Your task to perform on an android device: Go to battery settings Image 0: 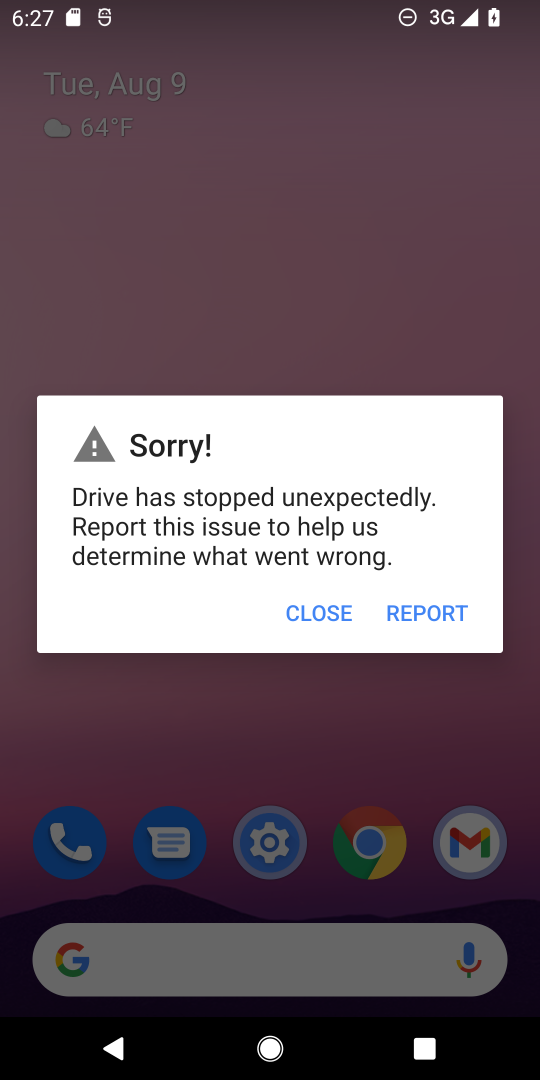
Step 0: drag from (320, 935) to (454, 258)
Your task to perform on an android device: Go to battery settings Image 1: 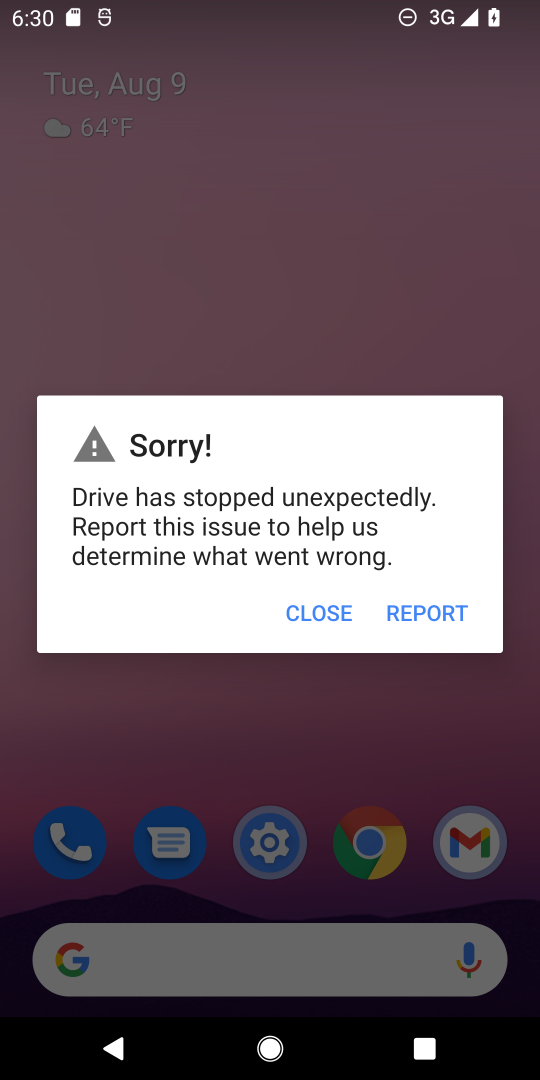
Step 1: drag from (205, 837) to (301, 5)
Your task to perform on an android device: Go to battery settings Image 2: 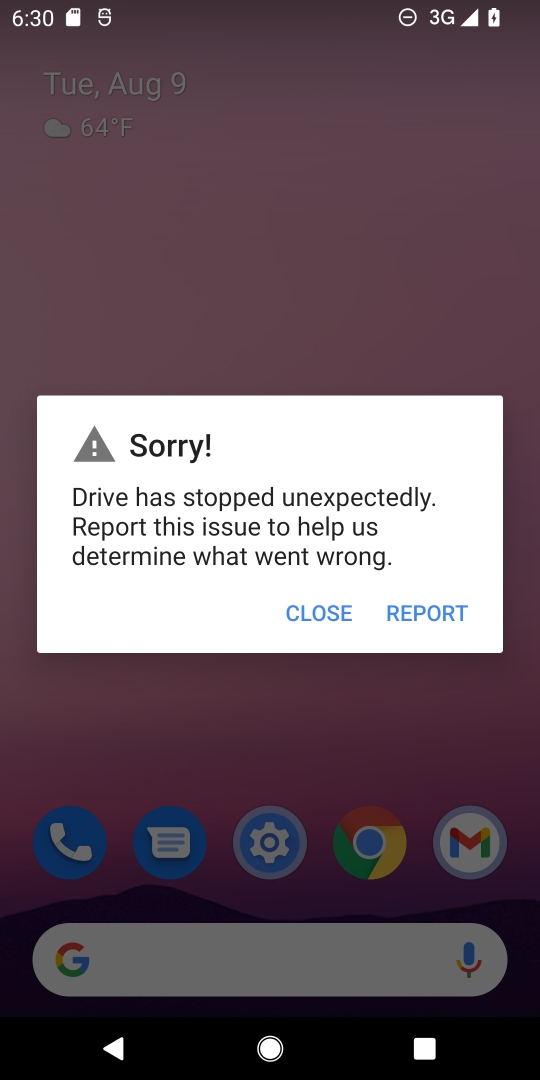
Step 2: drag from (267, 778) to (327, 43)
Your task to perform on an android device: Go to battery settings Image 3: 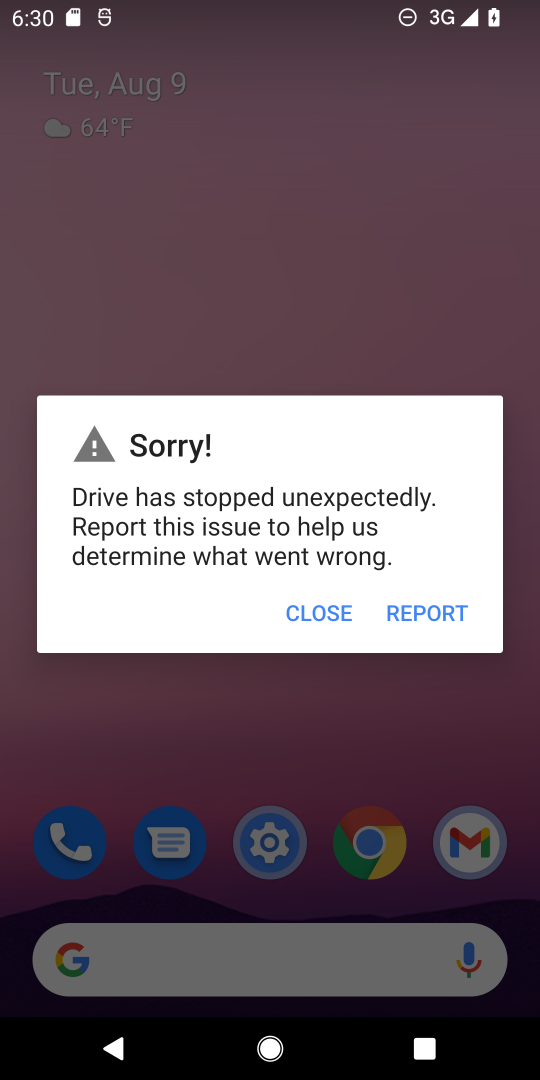
Step 3: drag from (227, 923) to (307, 43)
Your task to perform on an android device: Go to battery settings Image 4: 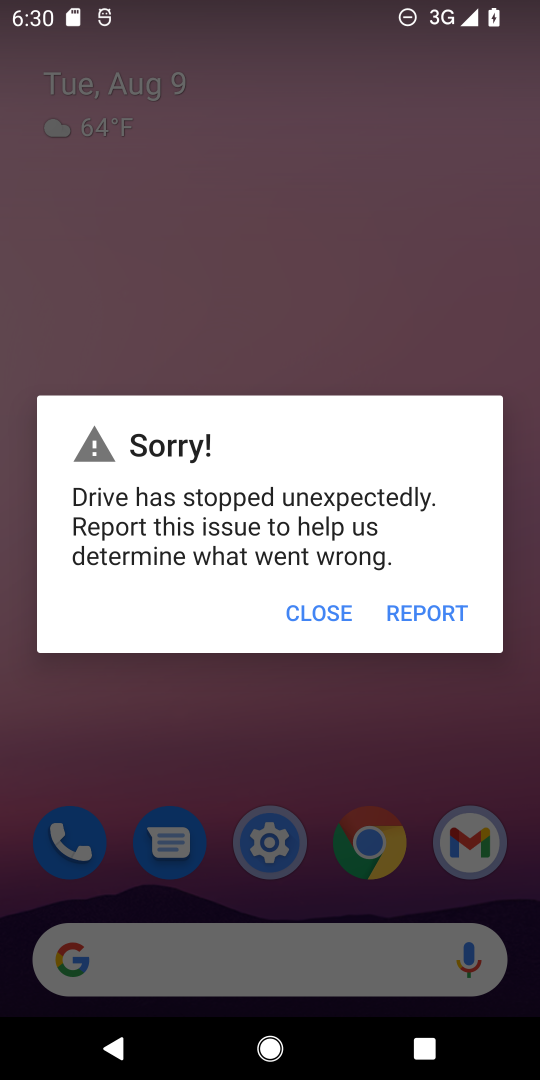
Step 4: click (309, 617)
Your task to perform on an android device: Go to battery settings Image 5: 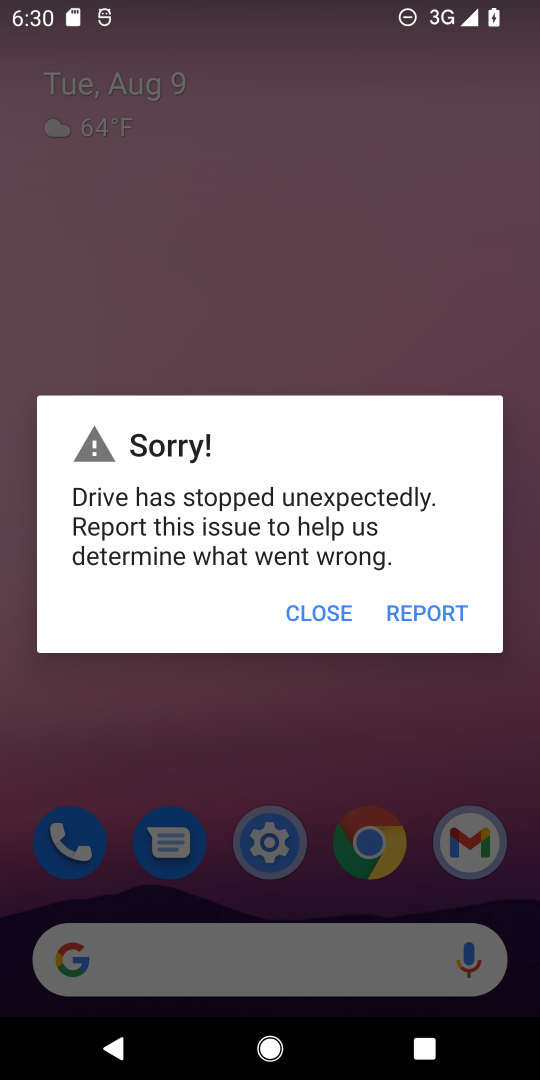
Step 5: drag from (326, 923) to (350, 39)
Your task to perform on an android device: Go to battery settings Image 6: 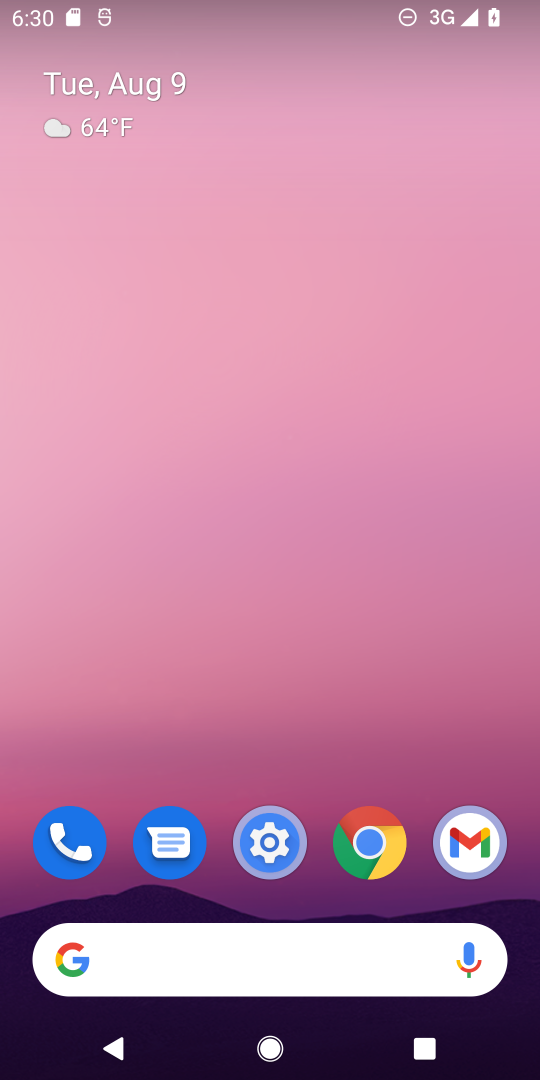
Step 6: drag from (284, 855) to (385, 8)
Your task to perform on an android device: Go to battery settings Image 7: 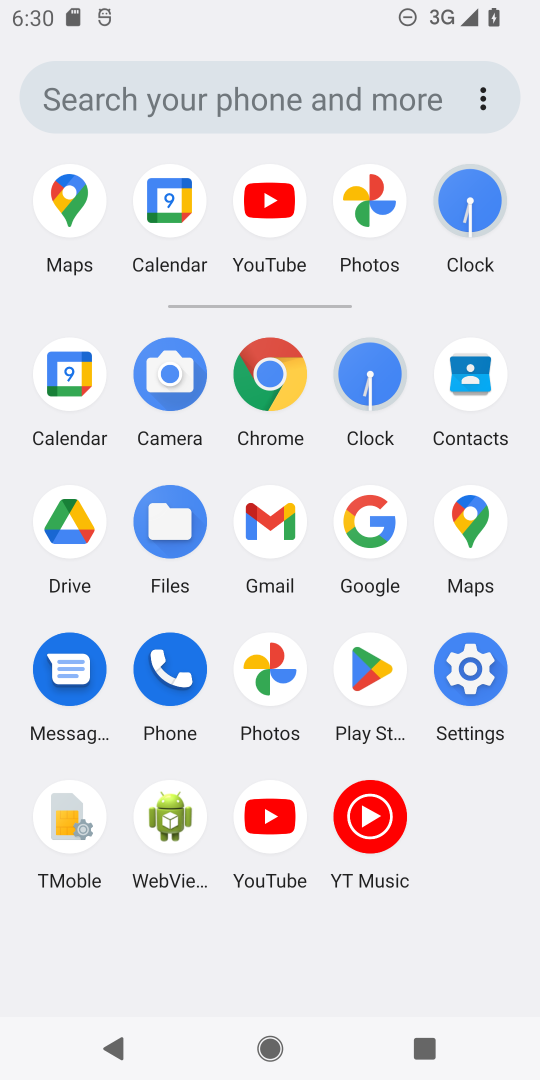
Step 7: click (449, 669)
Your task to perform on an android device: Go to battery settings Image 8: 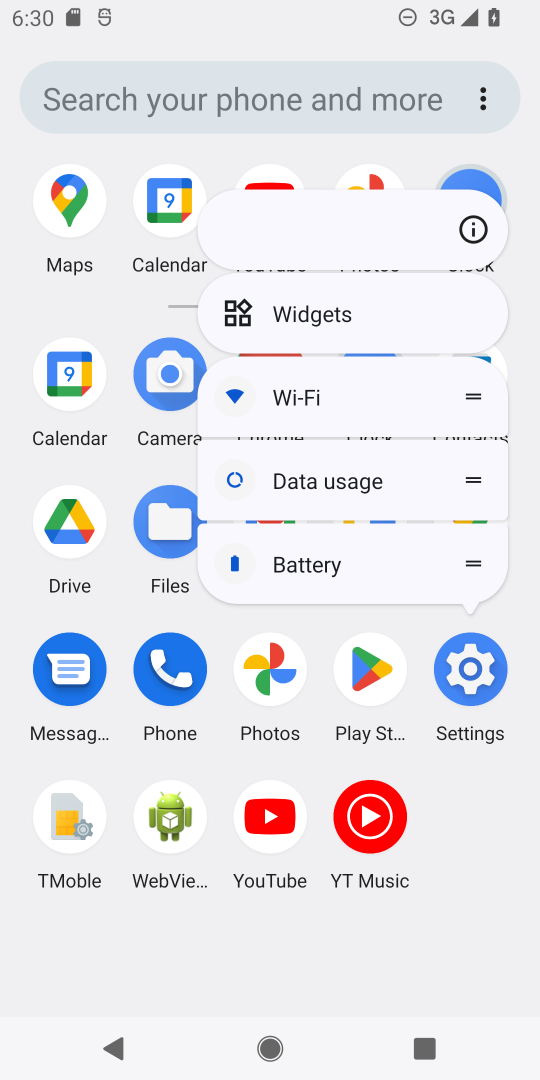
Step 8: click (448, 671)
Your task to perform on an android device: Go to battery settings Image 9: 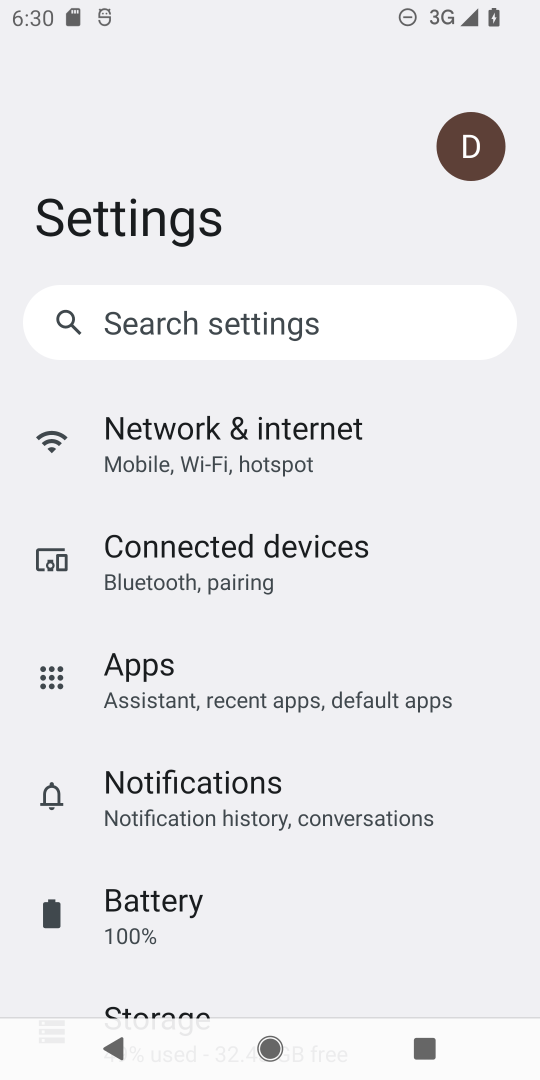
Step 9: click (139, 912)
Your task to perform on an android device: Go to battery settings Image 10: 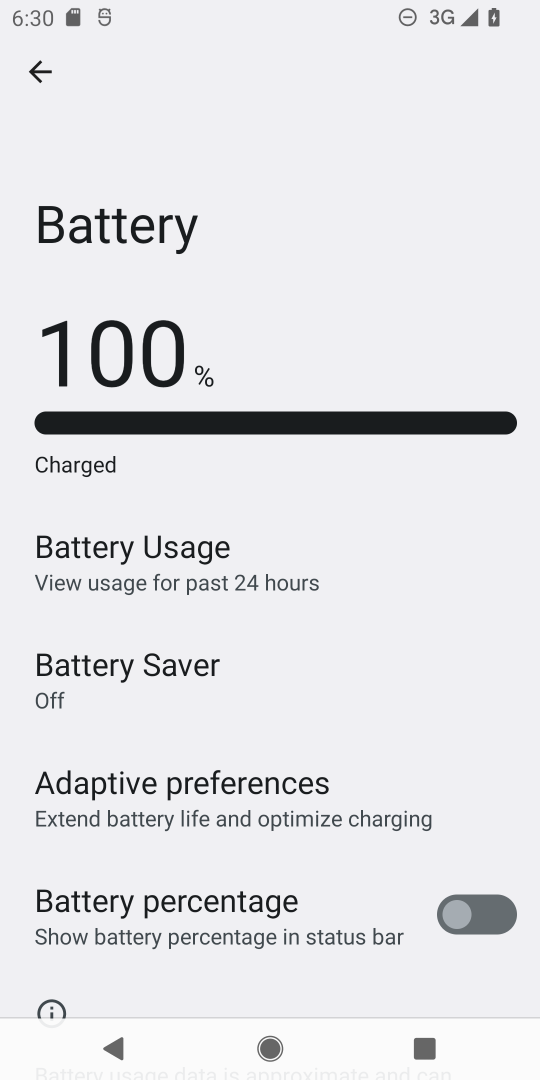
Step 10: task complete